Your task to perform on an android device: Open battery settings Image 0: 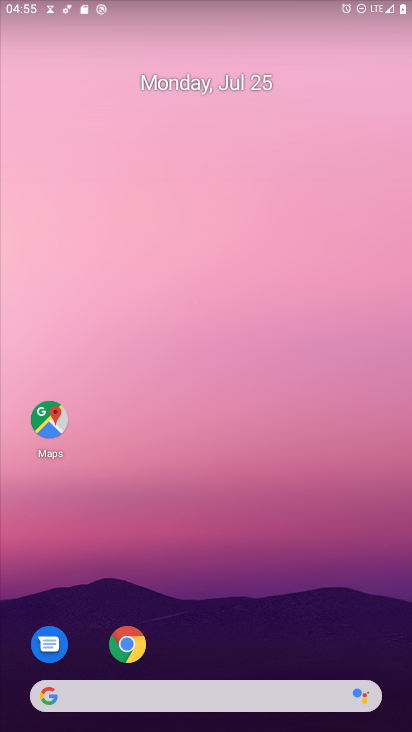
Step 0: press home button
Your task to perform on an android device: Open battery settings Image 1: 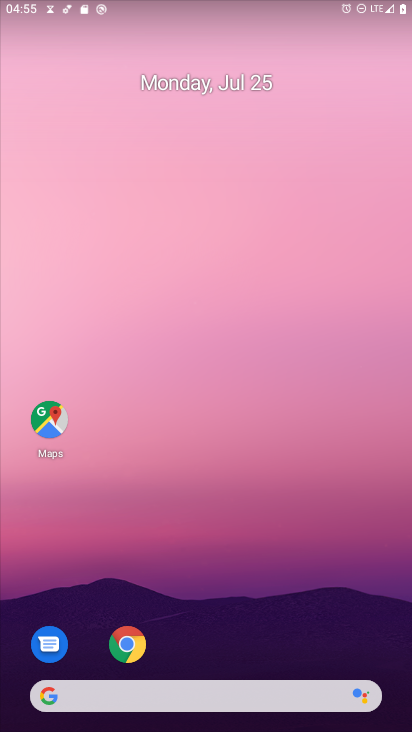
Step 1: drag from (272, 507) to (344, 81)
Your task to perform on an android device: Open battery settings Image 2: 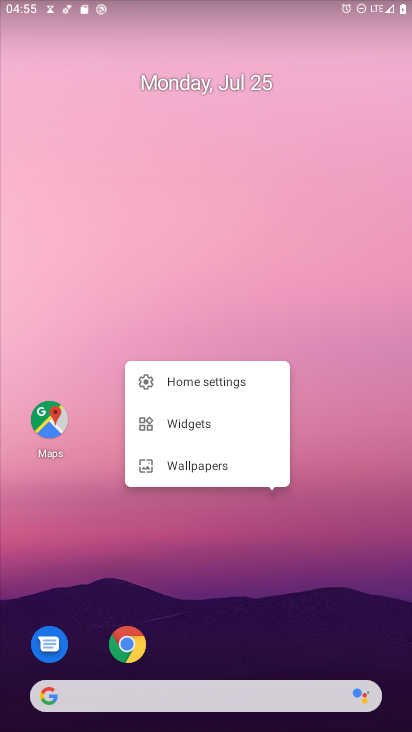
Step 2: drag from (302, 555) to (247, 46)
Your task to perform on an android device: Open battery settings Image 3: 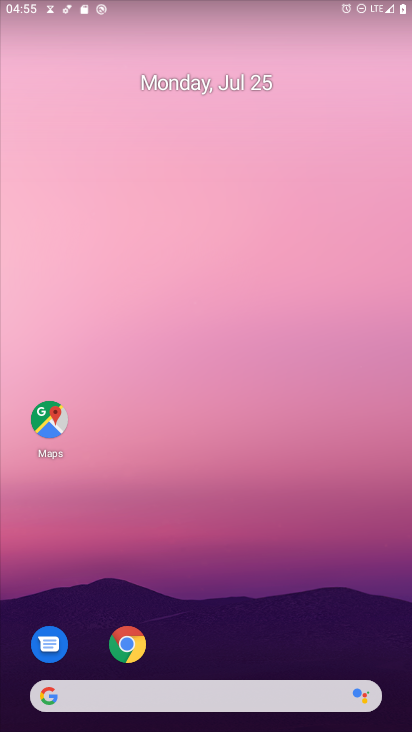
Step 3: drag from (218, 580) to (164, 8)
Your task to perform on an android device: Open battery settings Image 4: 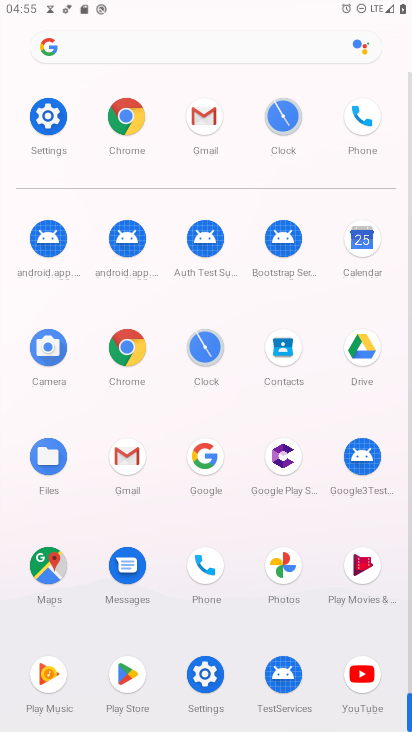
Step 4: click (42, 108)
Your task to perform on an android device: Open battery settings Image 5: 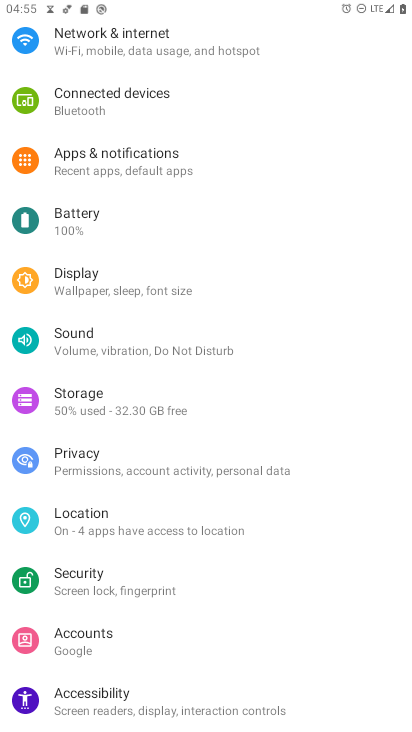
Step 5: click (112, 211)
Your task to perform on an android device: Open battery settings Image 6: 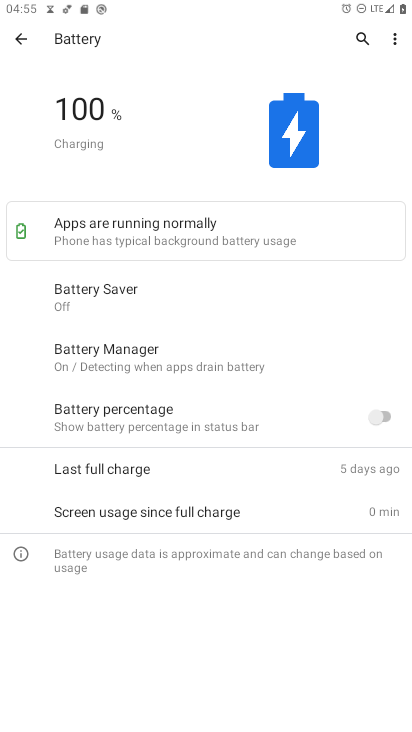
Step 6: task complete